Your task to perform on an android device: Do I have any events today? Image 0: 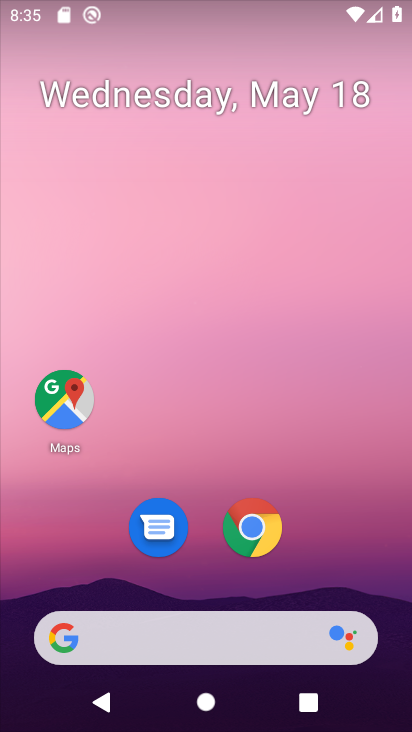
Step 0: drag from (294, 570) to (298, 142)
Your task to perform on an android device: Do I have any events today? Image 1: 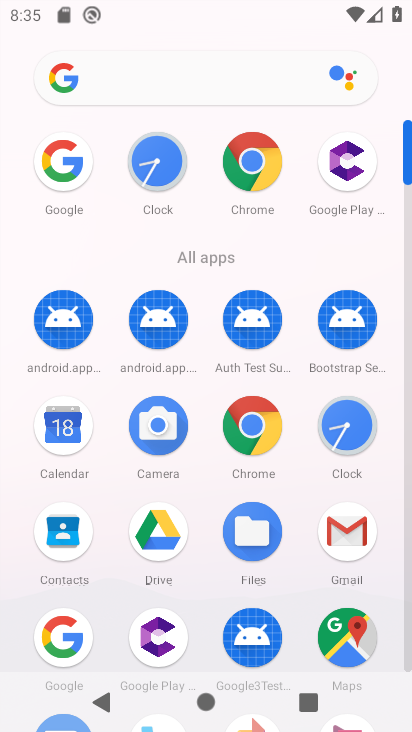
Step 1: click (68, 440)
Your task to perform on an android device: Do I have any events today? Image 2: 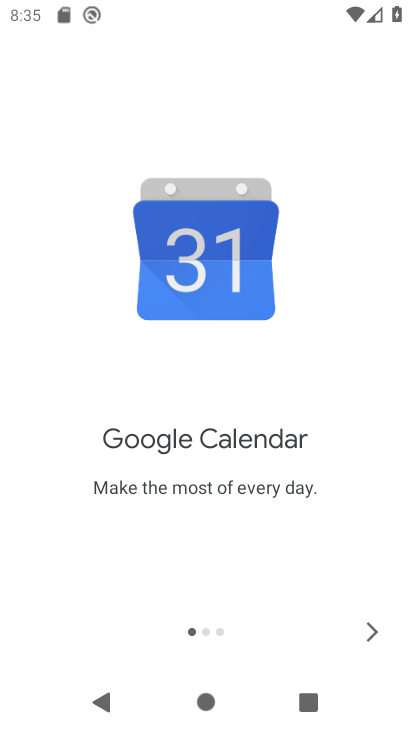
Step 2: click (374, 643)
Your task to perform on an android device: Do I have any events today? Image 3: 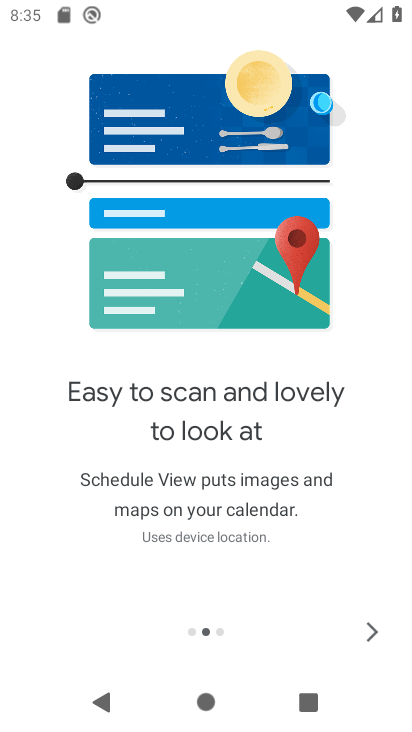
Step 3: click (375, 642)
Your task to perform on an android device: Do I have any events today? Image 4: 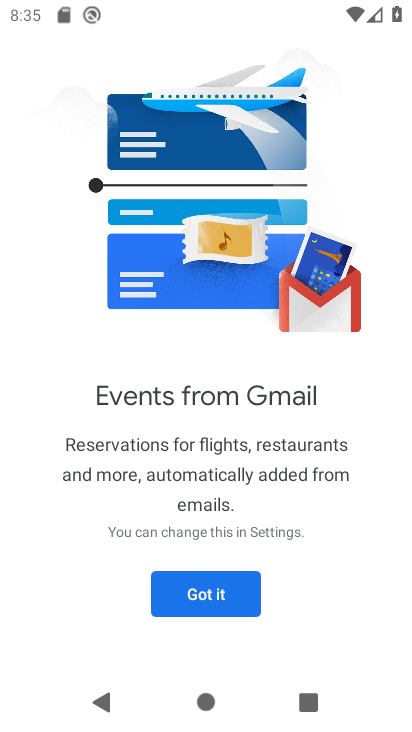
Step 4: click (234, 581)
Your task to perform on an android device: Do I have any events today? Image 5: 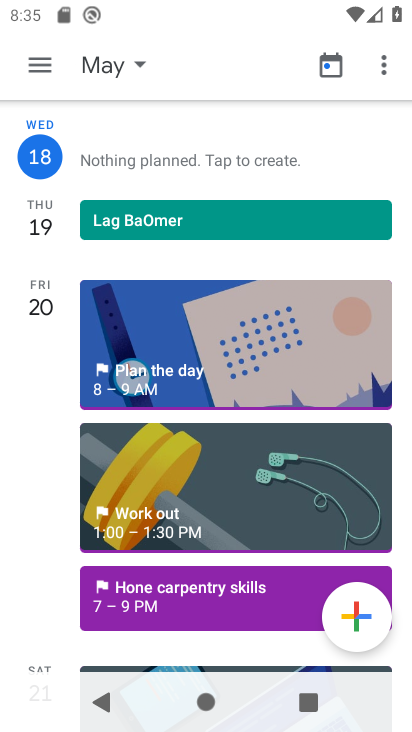
Step 5: task complete